Your task to perform on an android device: toggle translation in the chrome app Image 0: 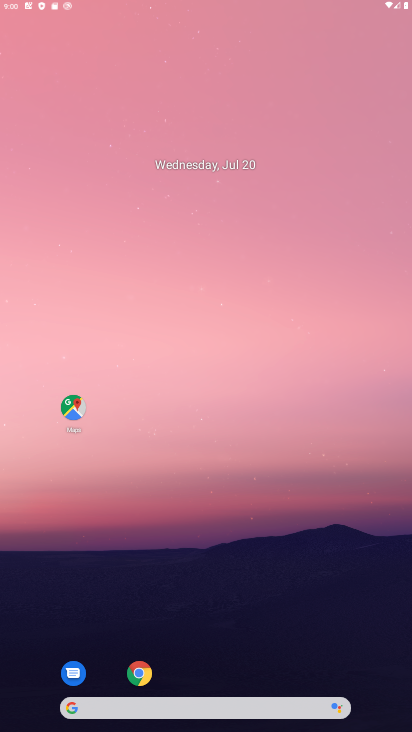
Step 0: click (187, 115)
Your task to perform on an android device: toggle translation in the chrome app Image 1: 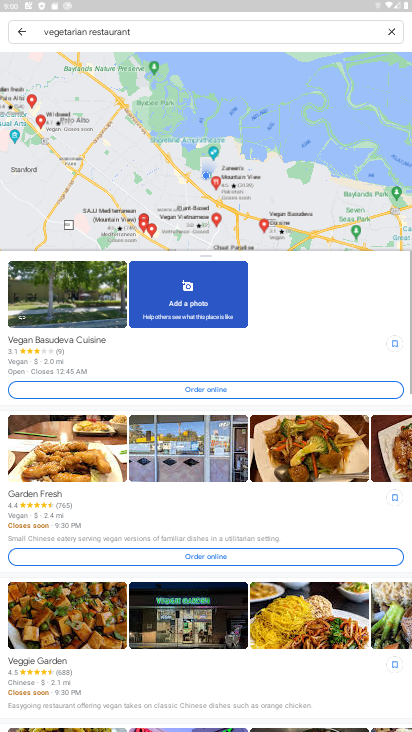
Step 1: press home button
Your task to perform on an android device: toggle translation in the chrome app Image 2: 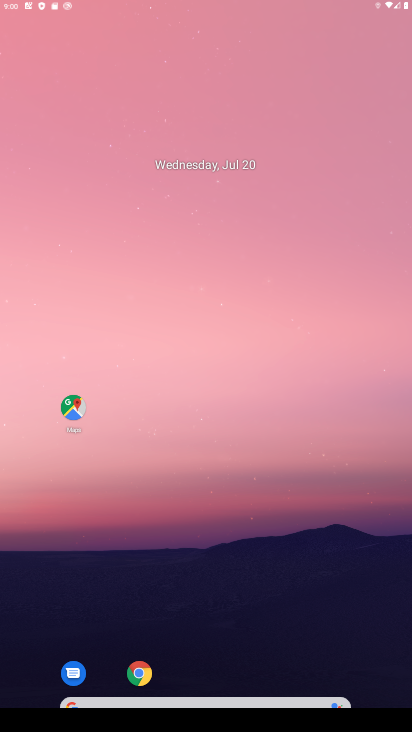
Step 2: drag from (198, 667) to (262, 130)
Your task to perform on an android device: toggle translation in the chrome app Image 3: 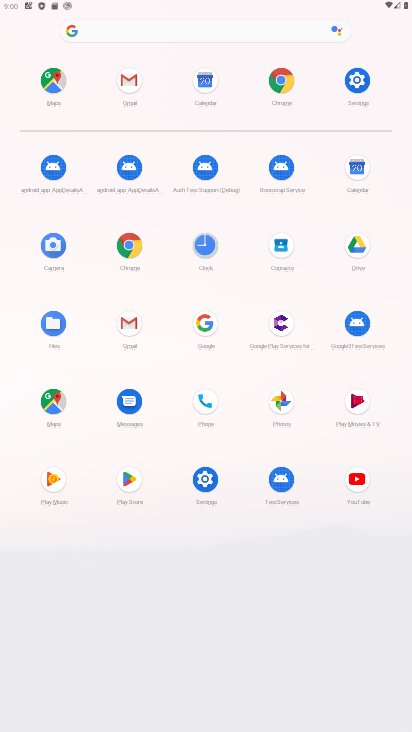
Step 3: click (129, 252)
Your task to perform on an android device: toggle translation in the chrome app Image 4: 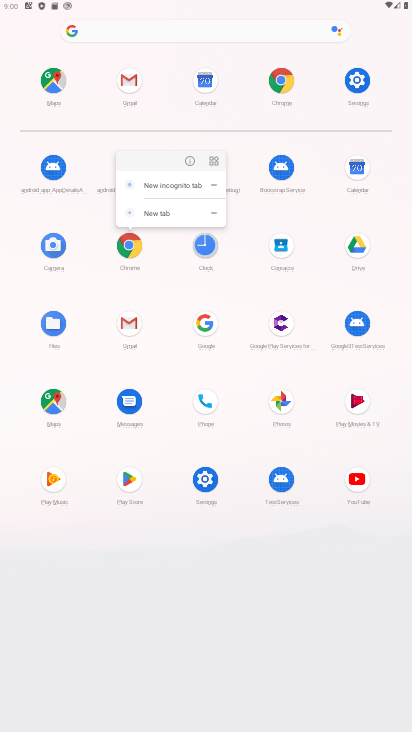
Step 4: click (187, 160)
Your task to perform on an android device: toggle translation in the chrome app Image 5: 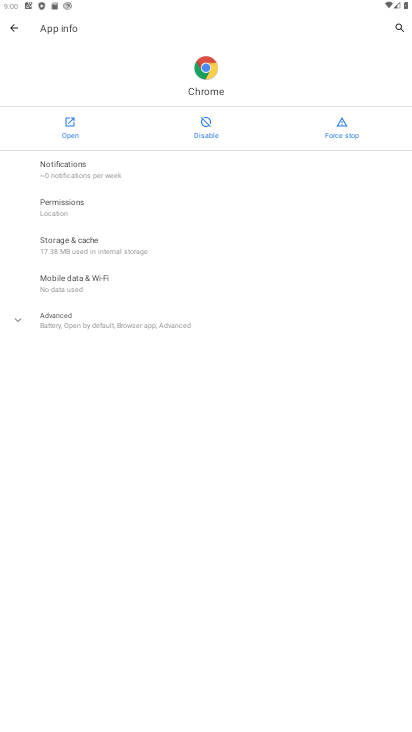
Step 5: click (48, 121)
Your task to perform on an android device: toggle translation in the chrome app Image 6: 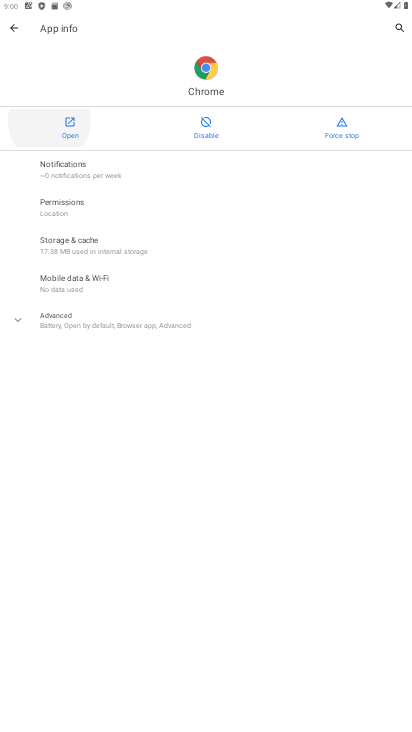
Step 6: click (48, 121)
Your task to perform on an android device: toggle translation in the chrome app Image 7: 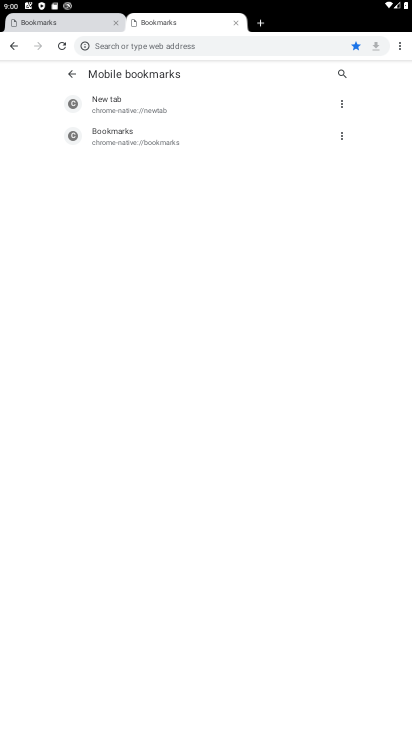
Step 7: drag from (401, 42) to (321, 210)
Your task to perform on an android device: toggle translation in the chrome app Image 8: 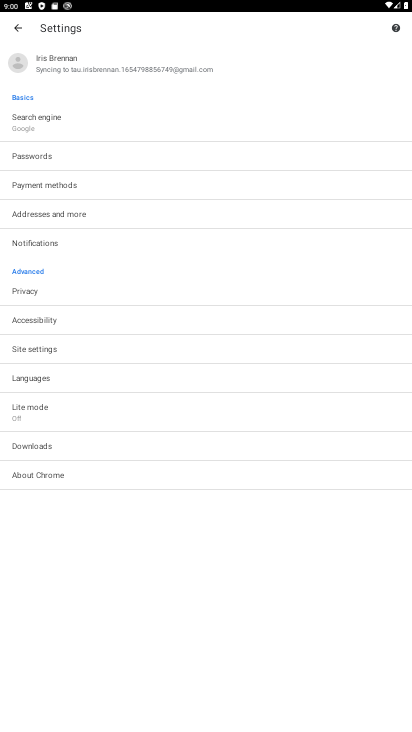
Step 8: click (68, 380)
Your task to perform on an android device: toggle translation in the chrome app Image 9: 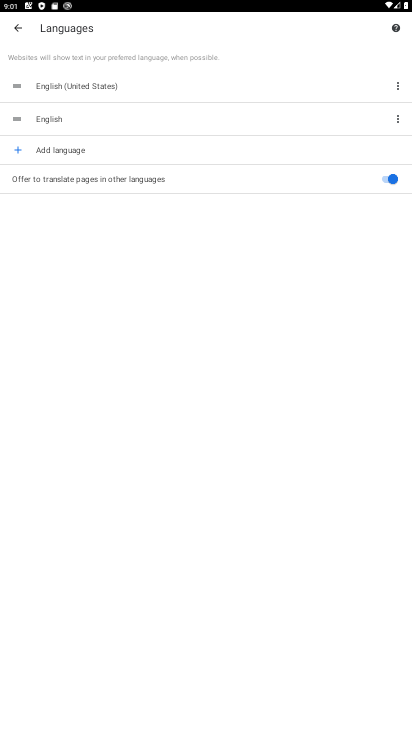
Step 9: drag from (227, 545) to (230, 364)
Your task to perform on an android device: toggle translation in the chrome app Image 10: 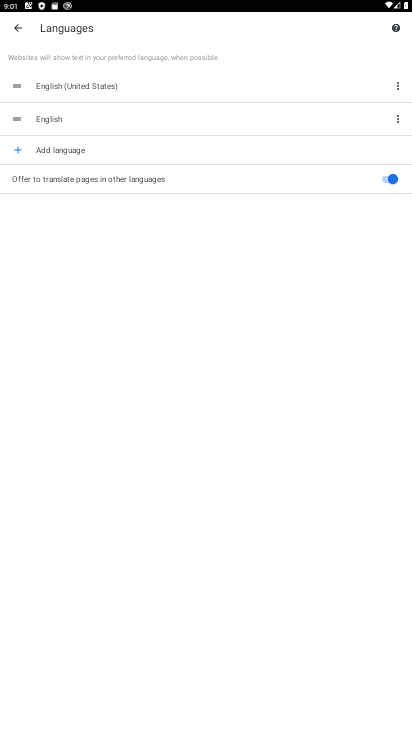
Step 10: drag from (227, 424) to (259, 324)
Your task to perform on an android device: toggle translation in the chrome app Image 11: 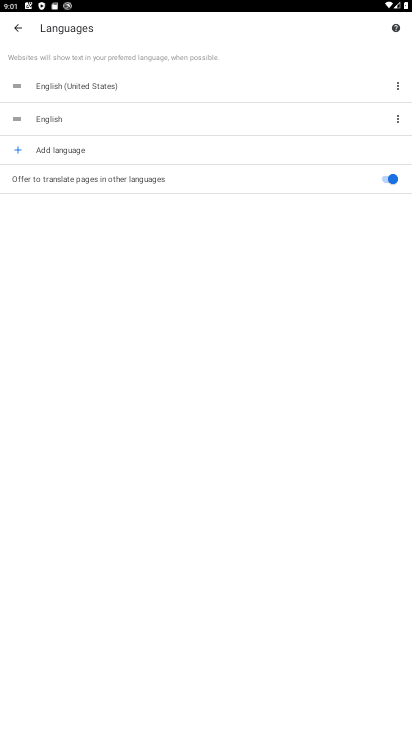
Step 11: click (387, 181)
Your task to perform on an android device: toggle translation in the chrome app Image 12: 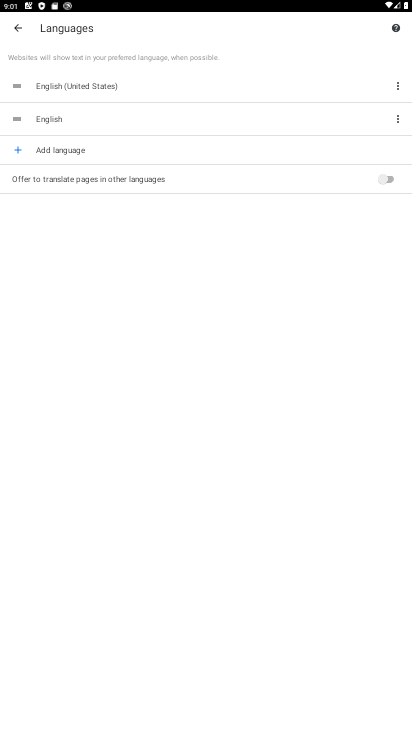
Step 12: task complete